Your task to perform on an android device: Go to Android settings Image 0: 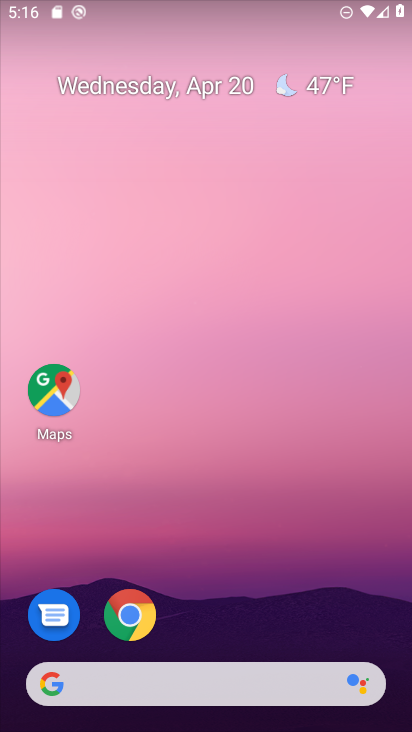
Step 0: drag from (270, 522) to (272, 117)
Your task to perform on an android device: Go to Android settings Image 1: 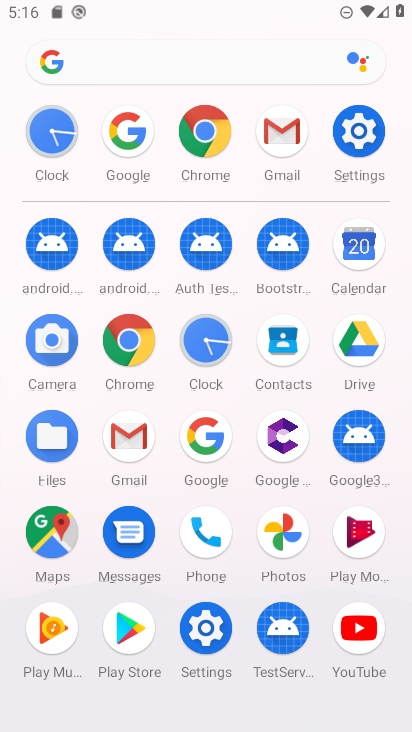
Step 1: click (352, 135)
Your task to perform on an android device: Go to Android settings Image 2: 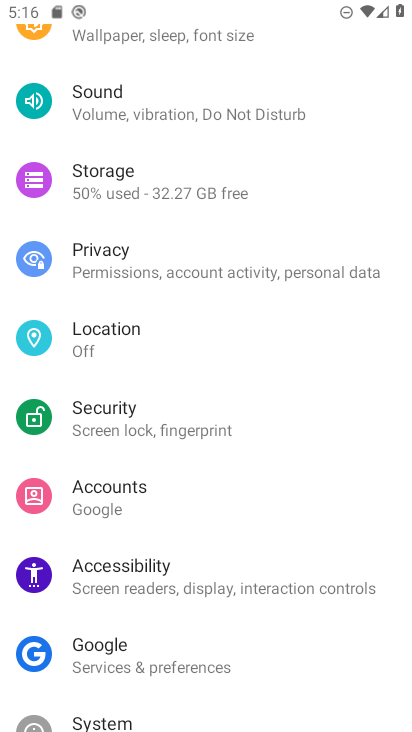
Step 2: drag from (280, 685) to (274, 271)
Your task to perform on an android device: Go to Android settings Image 3: 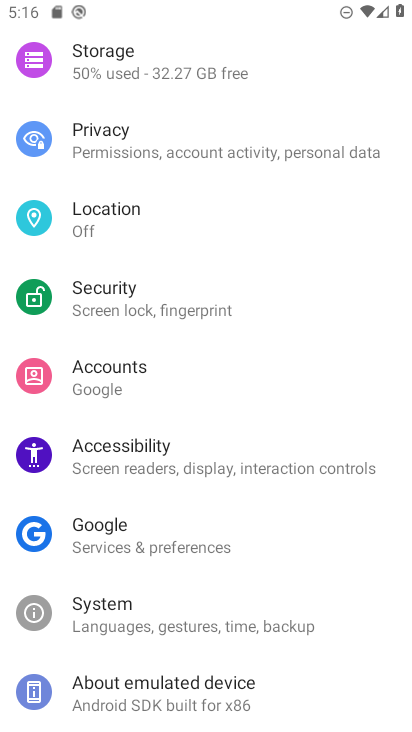
Step 3: click (216, 693)
Your task to perform on an android device: Go to Android settings Image 4: 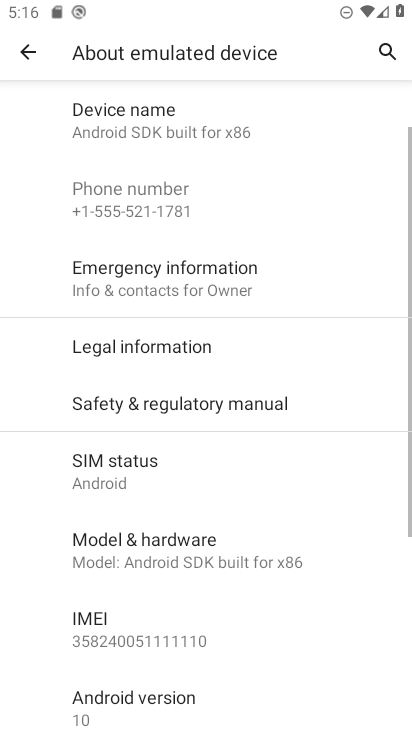
Step 4: click (156, 704)
Your task to perform on an android device: Go to Android settings Image 5: 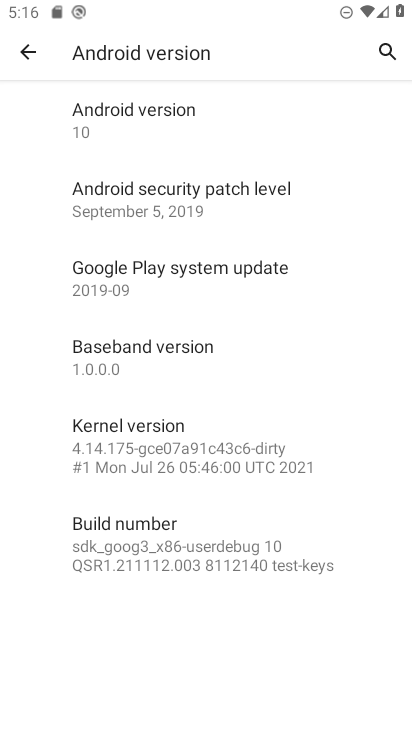
Step 5: click (171, 121)
Your task to perform on an android device: Go to Android settings Image 6: 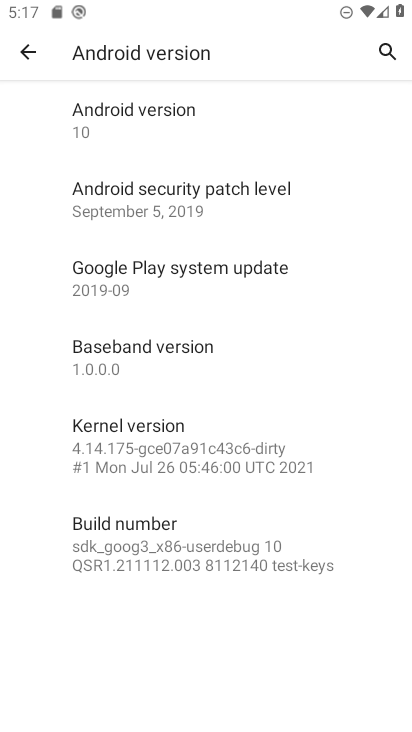
Step 6: task complete